Your task to perform on an android device: Search for "dell alienware" on ebay.com, select the first entry, and add it to the cart. Image 0: 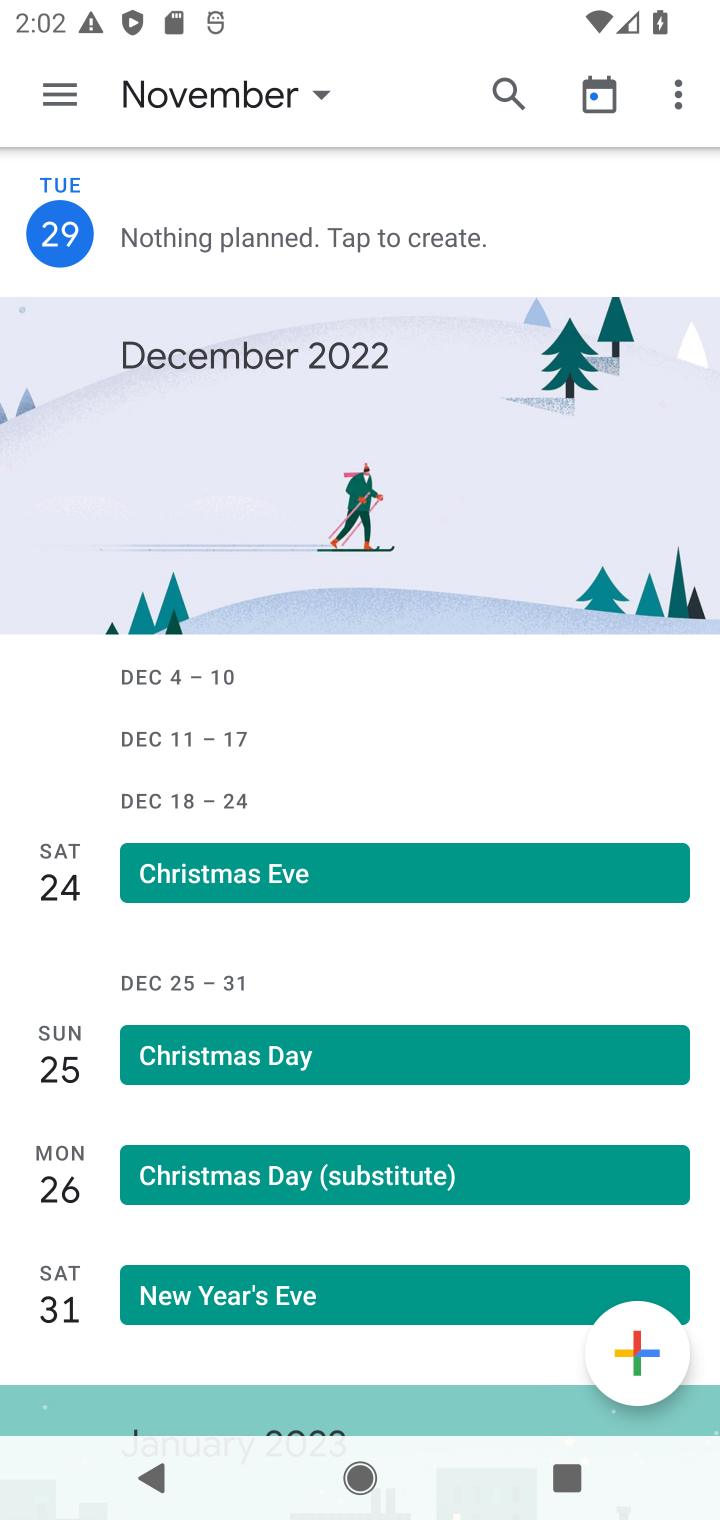
Step 0: press home button
Your task to perform on an android device: Search for "dell alienware" on ebay.com, select the first entry, and add it to the cart. Image 1: 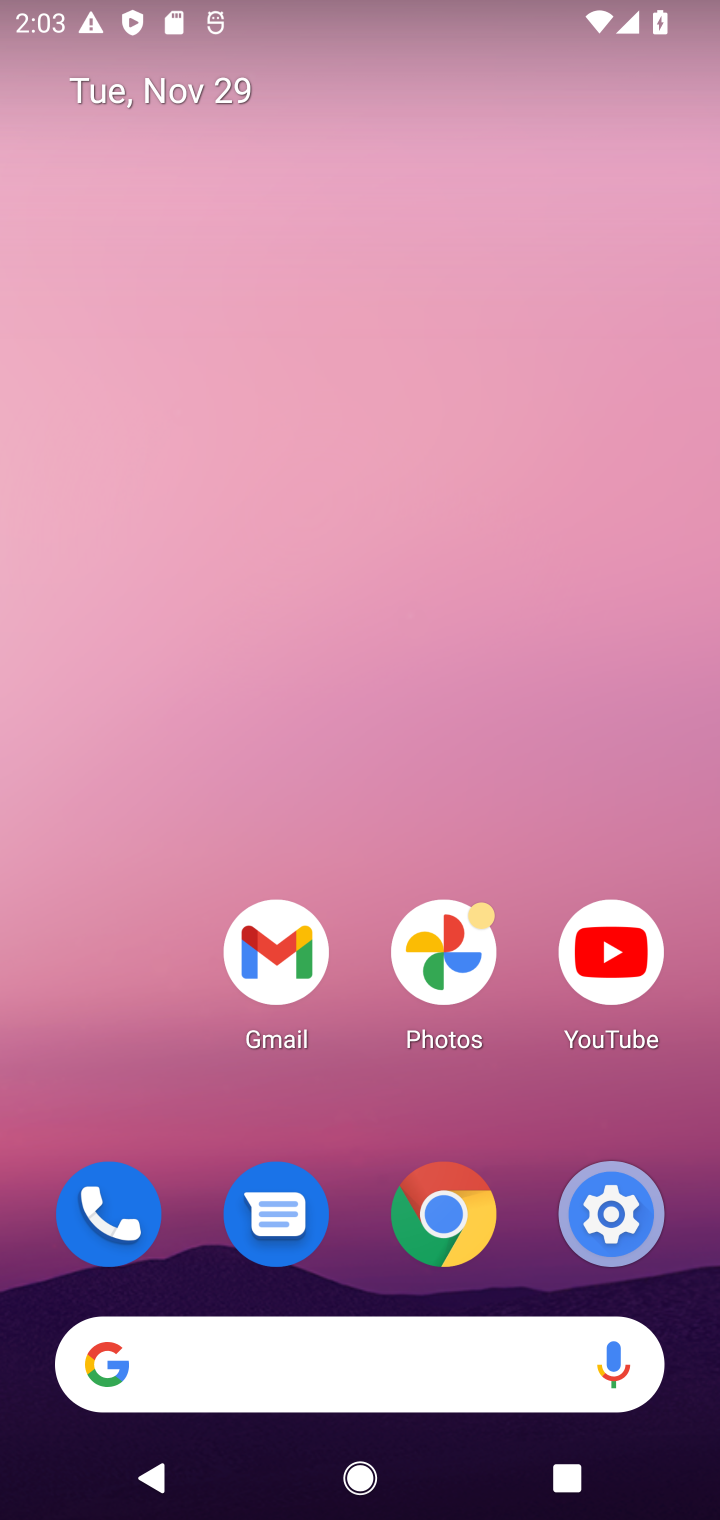
Step 1: click (229, 1335)
Your task to perform on an android device: Search for "dell alienware" on ebay.com, select the first entry, and add it to the cart. Image 2: 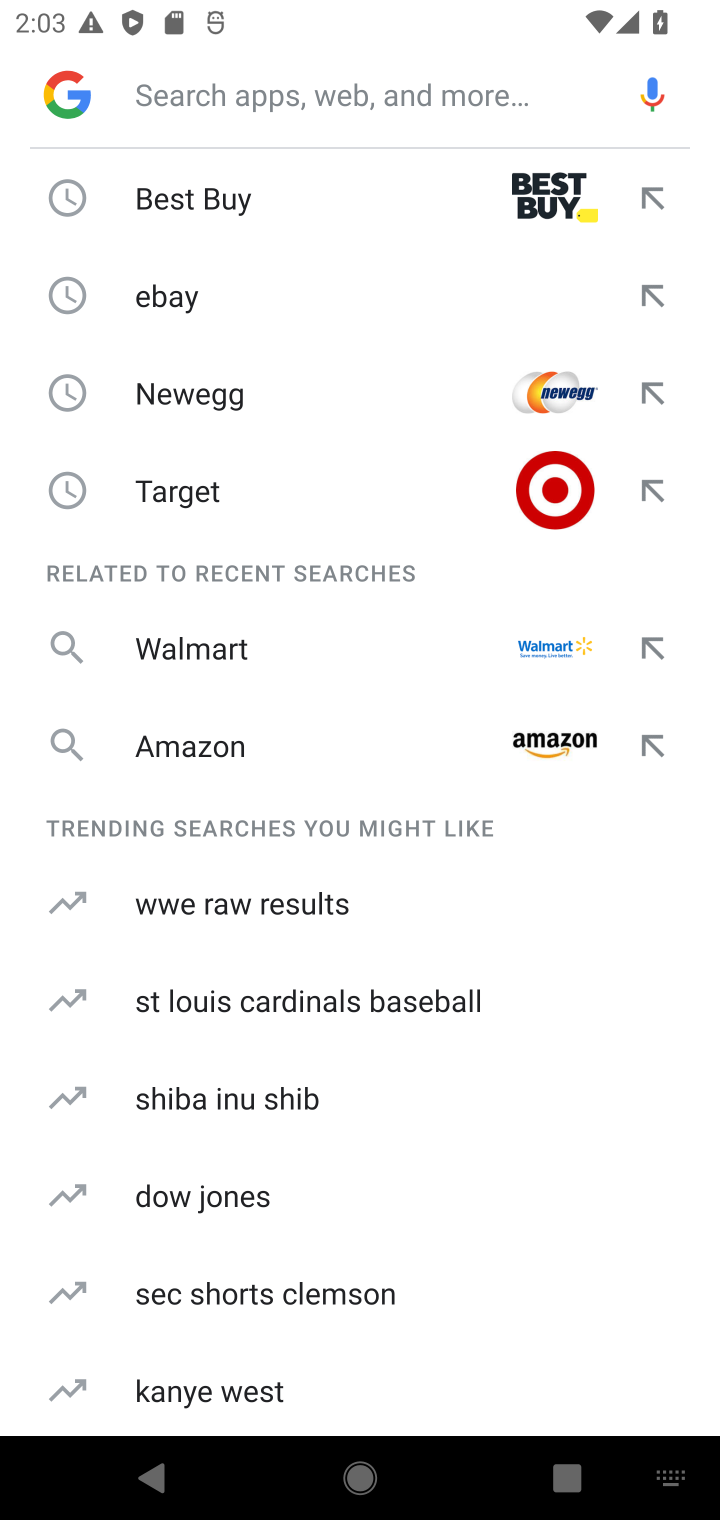
Step 2: click (168, 283)
Your task to perform on an android device: Search for "dell alienware" on ebay.com, select the first entry, and add it to the cart. Image 3: 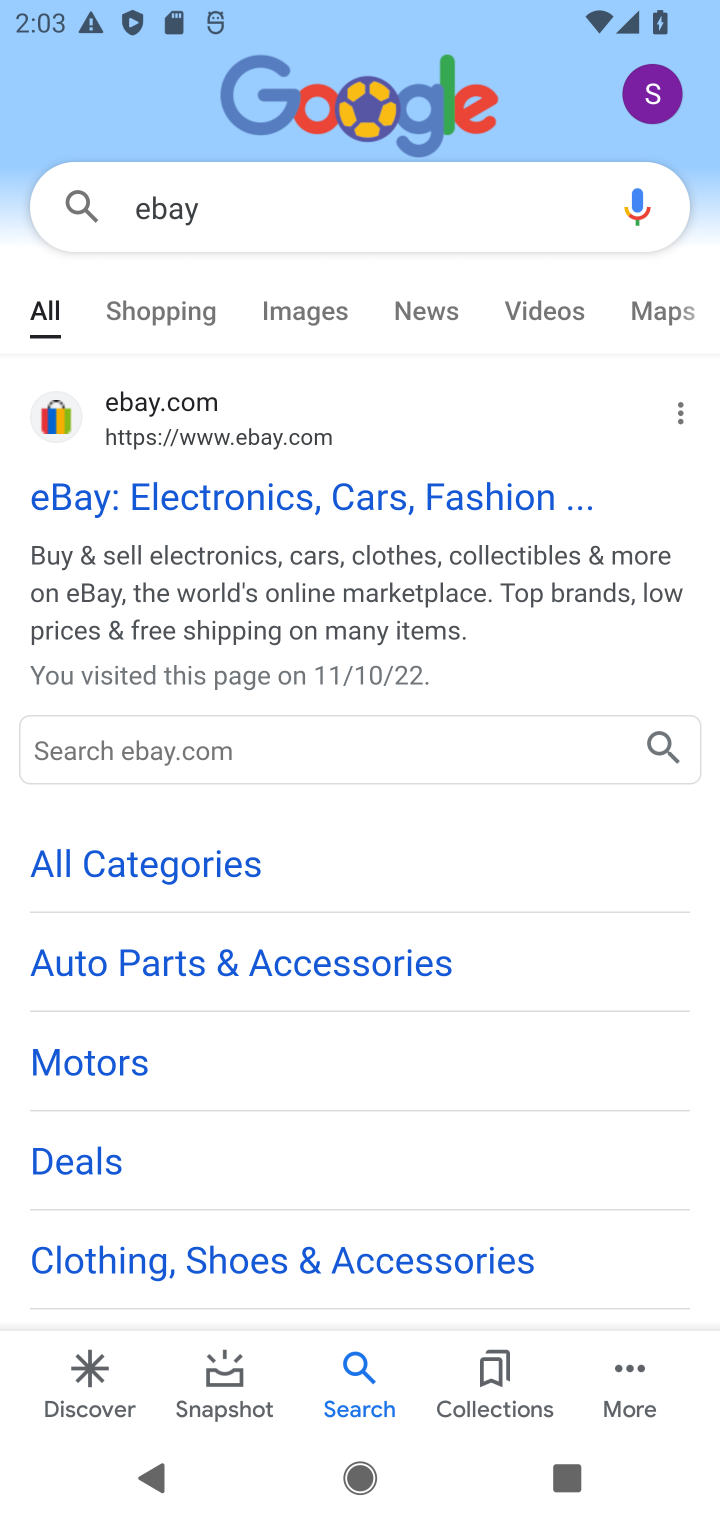
Step 3: click (184, 486)
Your task to perform on an android device: Search for "dell alienware" on ebay.com, select the first entry, and add it to the cart. Image 4: 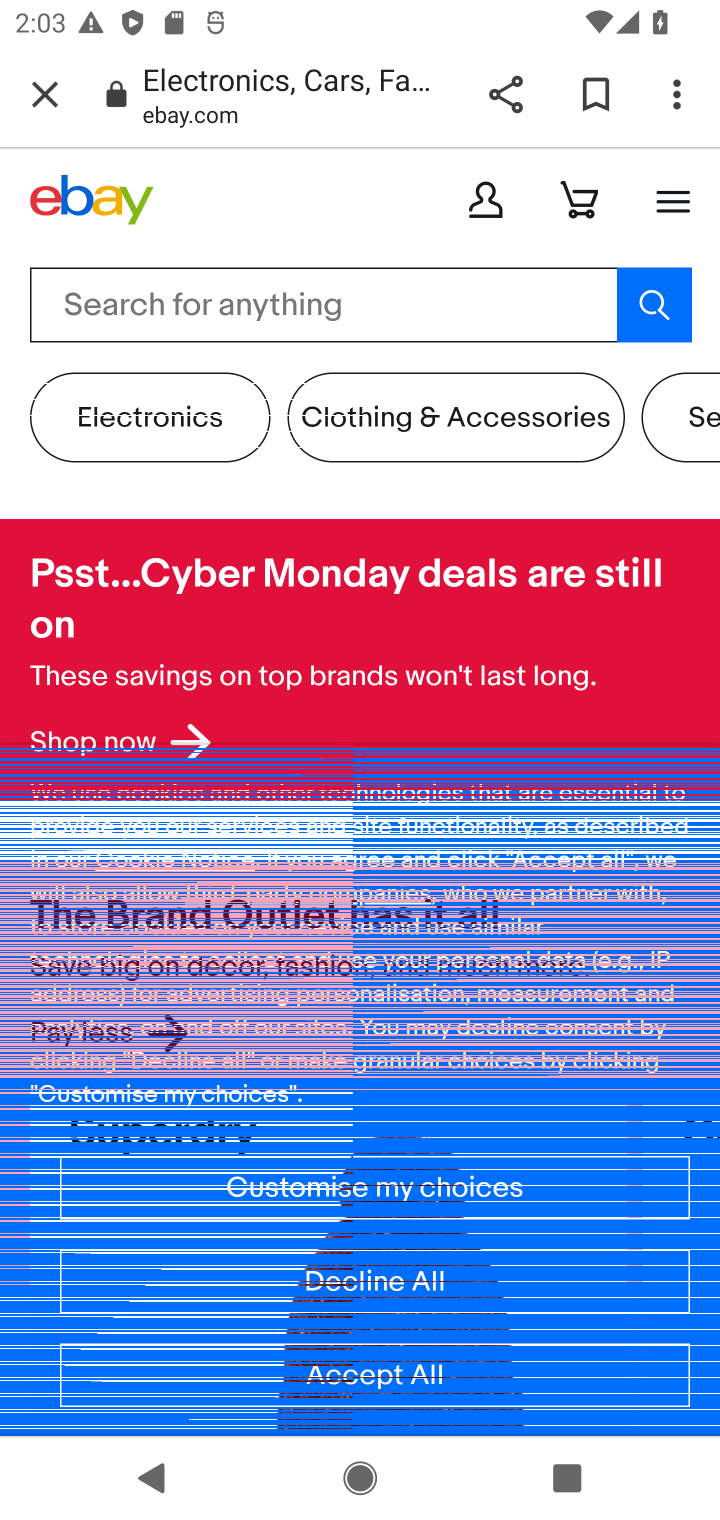
Step 4: click (264, 295)
Your task to perform on an android device: Search for "dell alienware" on ebay.com, select the first entry, and add it to the cart. Image 5: 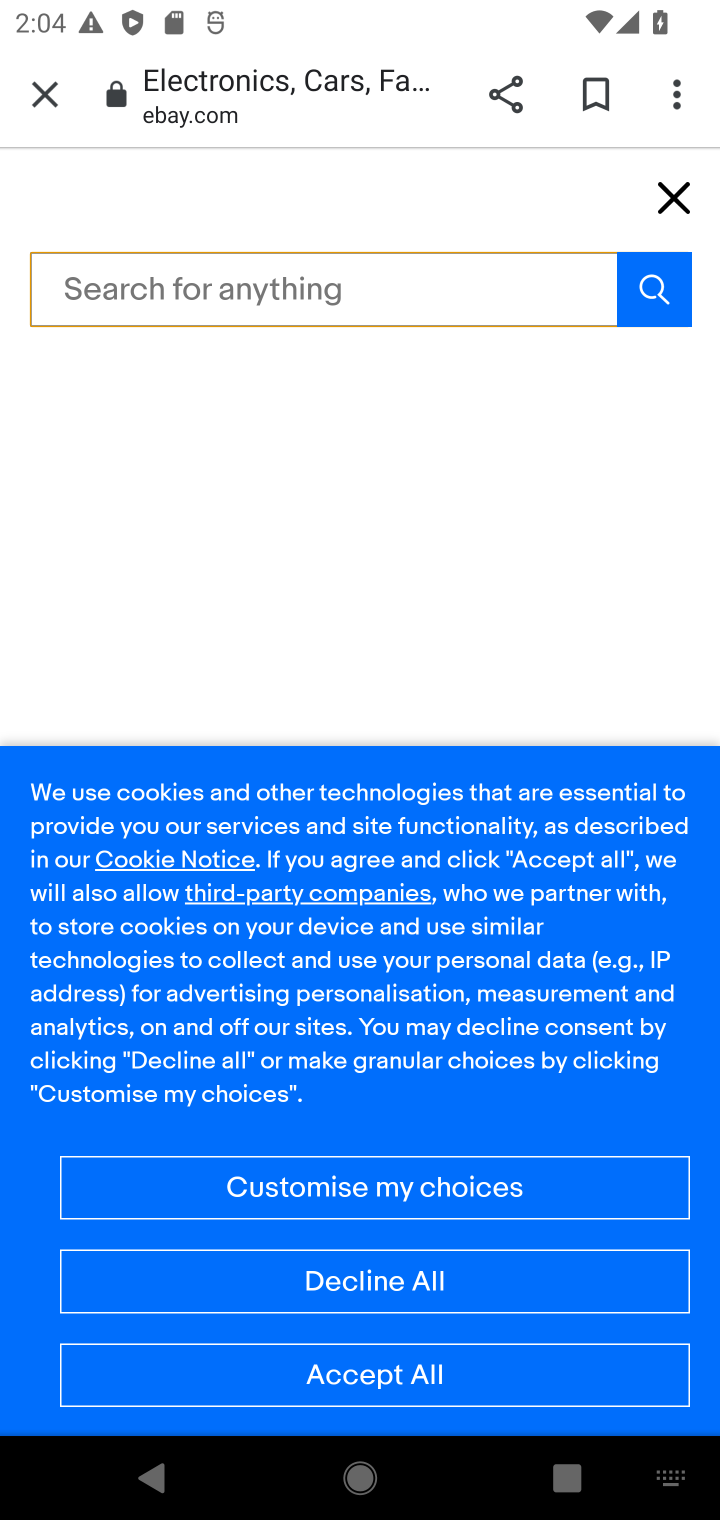
Step 5: task complete